Your task to perform on an android device: stop showing notifications on the lock screen Image 0: 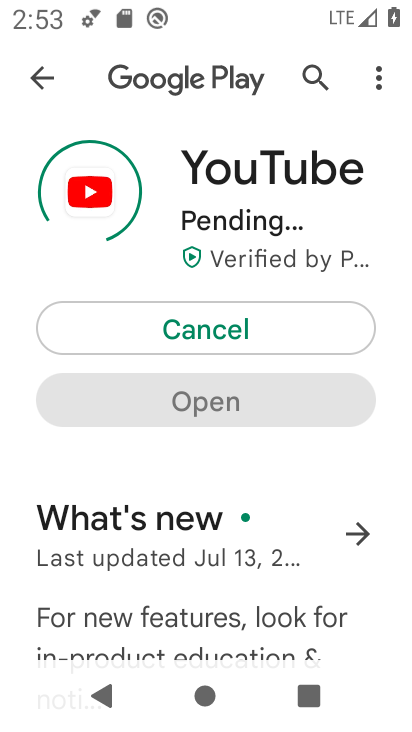
Step 0: press home button
Your task to perform on an android device: stop showing notifications on the lock screen Image 1: 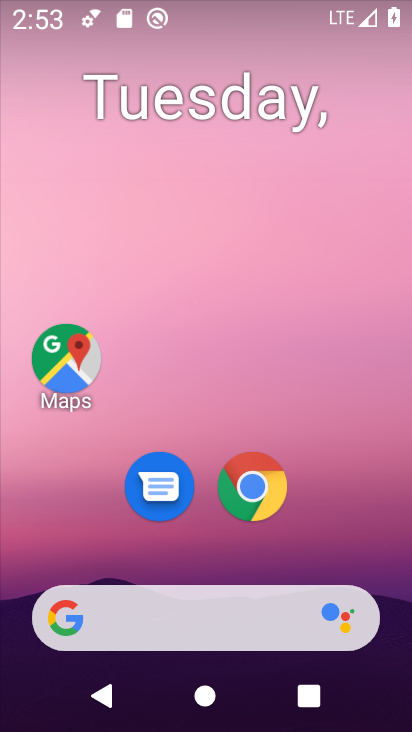
Step 1: drag from (358, 537) to (343, 85)
Your task to perform on an android device: stop showing notifications on the lock screen Image 2: 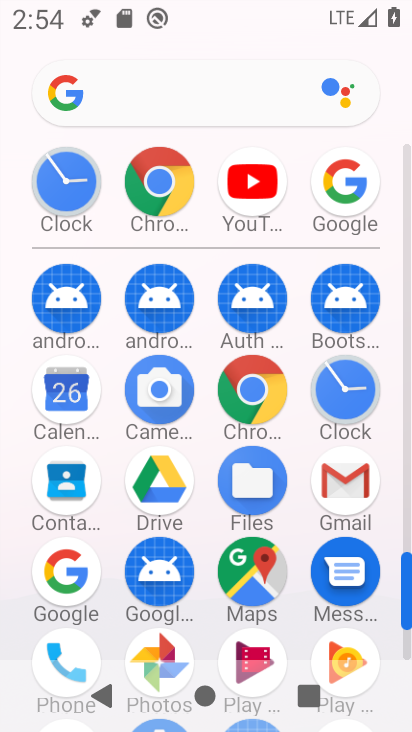
Step 2: drag from (391, 474) to (389, 231)
Your task to perform on an android device: stop showing notifications on the lock screen Image 3: 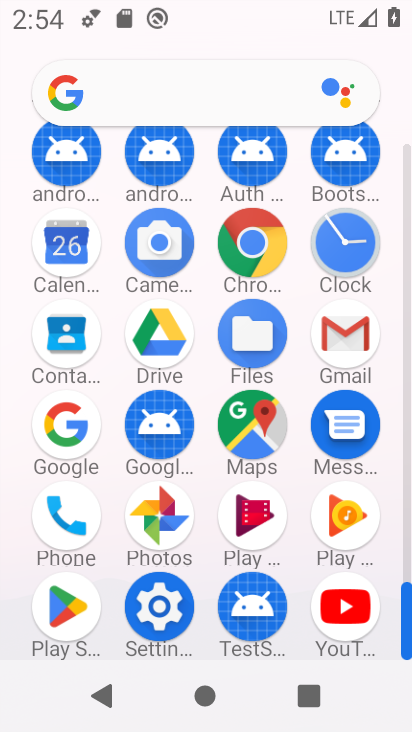
Step 3: click (158, 600)
Your task to perform on an android device: stop showing notifications on the lock screen Image 4: 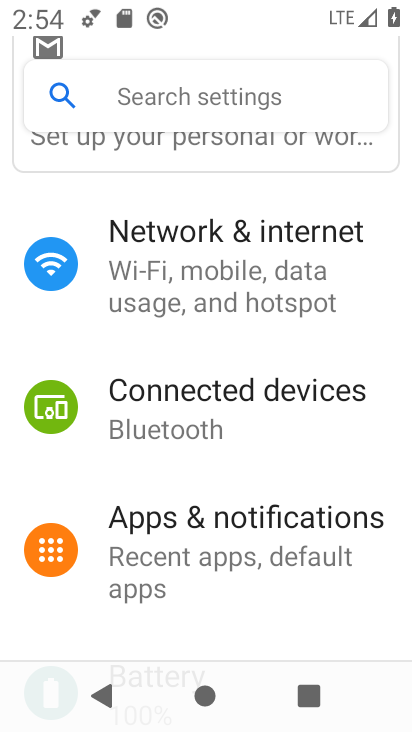
Step 4: drag from (365, 272) to (369, 374)
Your task to perform on an android device: stop showing notifications on the lock screen Image 5: 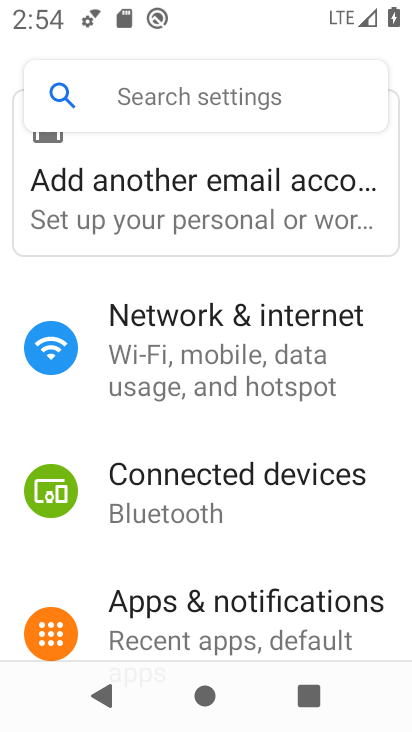
Step 5: drag from (366, 213) to (366, 424)
Your task to perform on an android device: stop showing notifications on the lock screen Image 6: 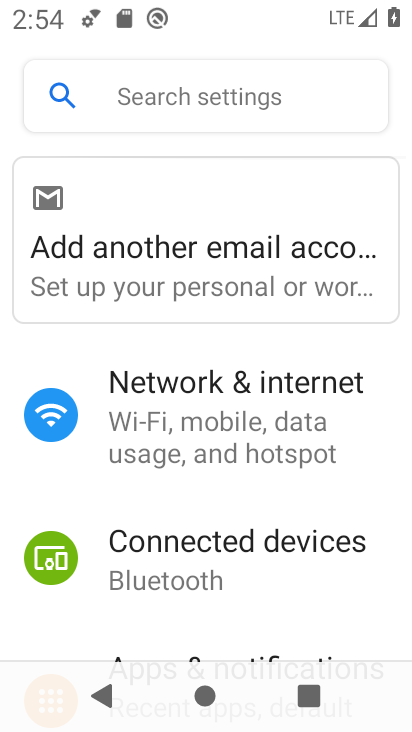
Step 6: drag from (349, 503) to (364, 410)
Your task to perform on an android device: stop showing notifications on the lock screen Image 7: 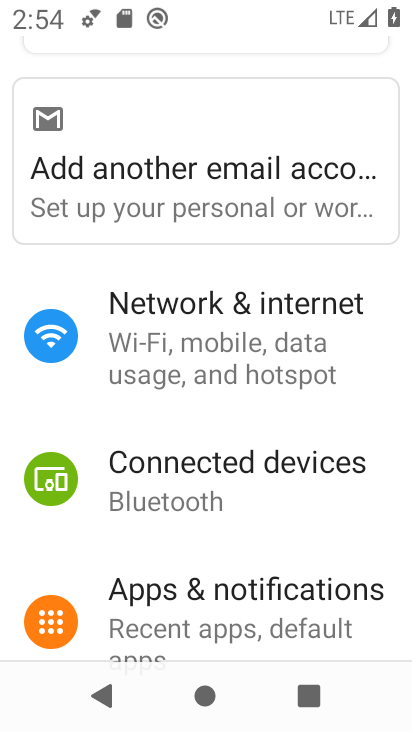
Step 7: drag from (359, 524) to (362, 427)
Your task to perform on an android device: stop showing notifications on the lock screen Image 8: 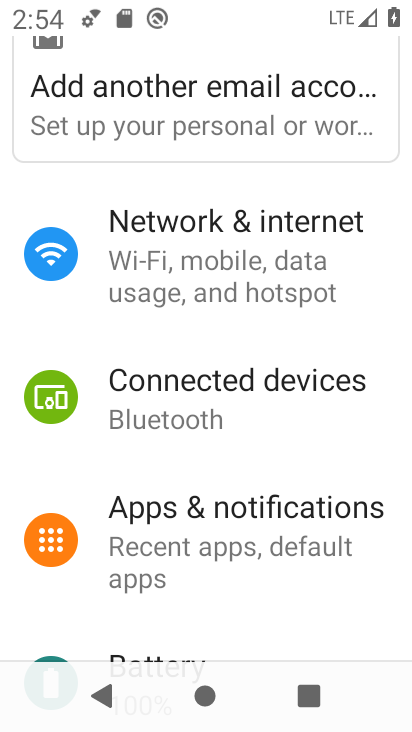
Step 8: drag from (364, 567) to (360, 473)
Your task to perform on an android device: stop showing notifications on the lock screen Image 9: 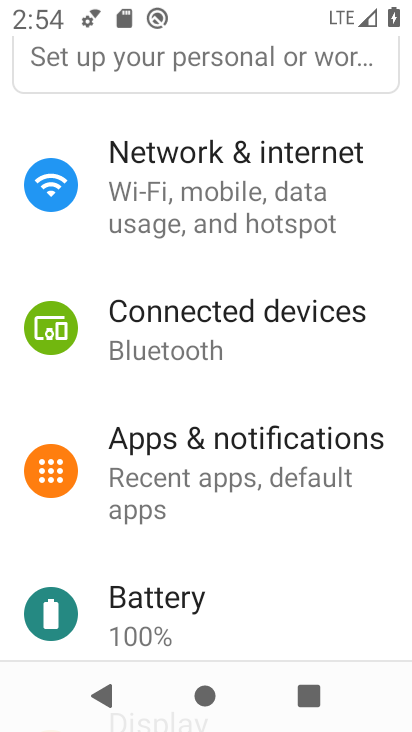
Step 9: drag from (343, 579) to (350, 500)
Your task to perform on an android device: stop showing notifications on the lock screen Image 10: 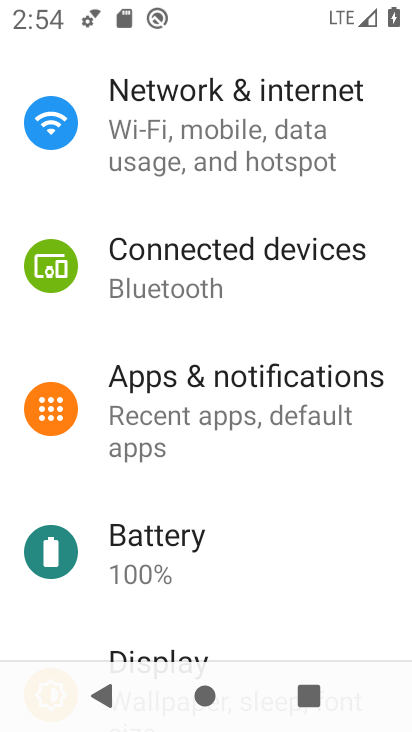
Step 10: drag from (335, 580) to (334, 469)
Your task to perform on an android device: stop showing notifications on the lock screen Image 11: 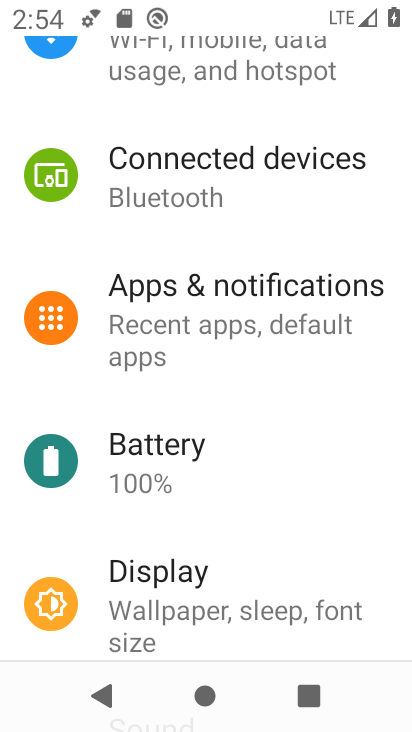
Step 11: drag from (338, 539) to (342, 434)
Your task to perform on an android device: stop showing notifications on the lock screen Image 12: 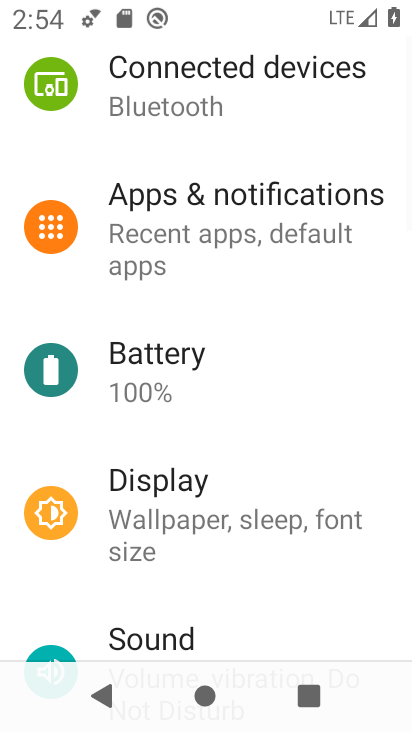
Step 12: drag from (340, 574) to (342, 442)
Your task to perform on an android device: stop showing notifications on the lock screen Image 13: 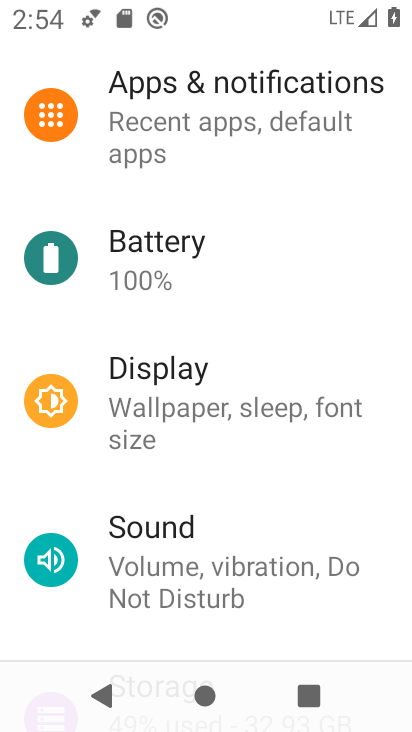
Step 13: drag from (318, 562) to (322, 464)
Your task to perform on an android device: stop showing notifications on the lock screen Image 14: 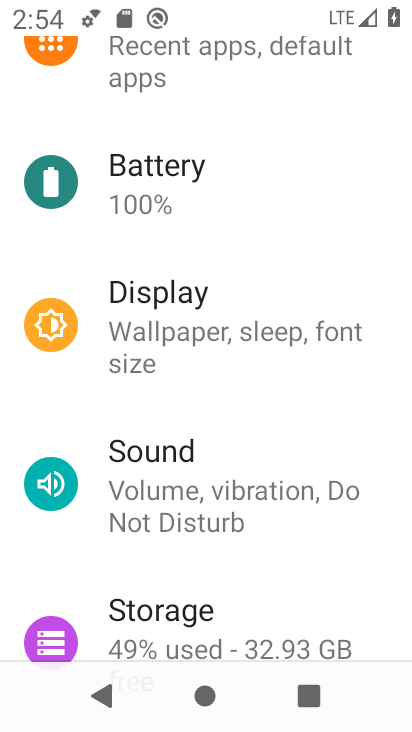
Step 14: drag from (334, 562) to (337, 471)
Your task to perform on an android device: stop showing notifications on the lock screen Image 15: 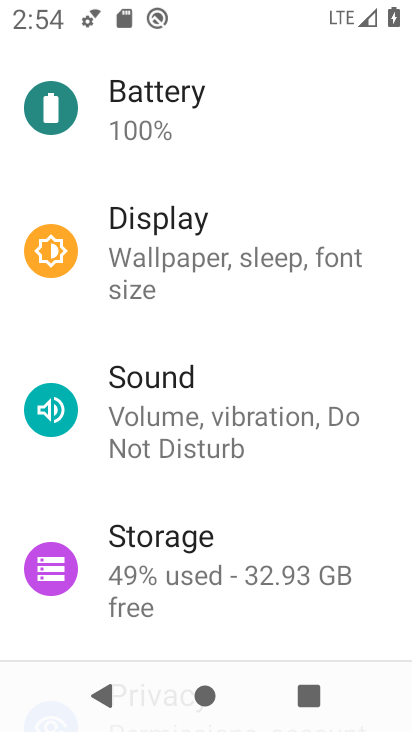
Step 15: drag from (340, 328) to (350, 427)
Your task to perform on an android device: stop showing notifications on the lock screen Image 16: 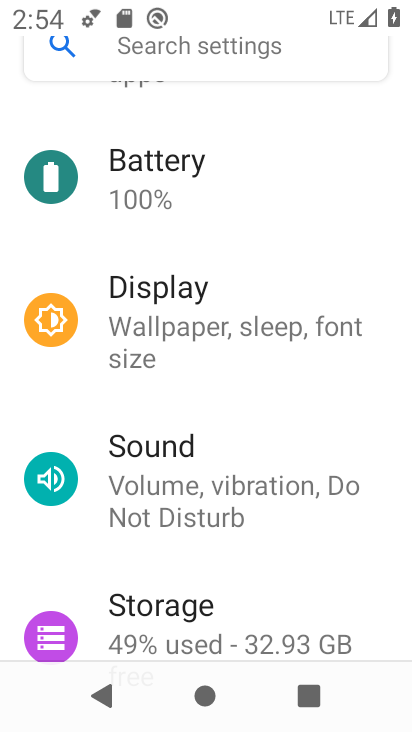
Step 16: drag from (354, 240) to (355, 370)
Your task to perform on an android device: stop showing notifications on the lock screen Image 17: 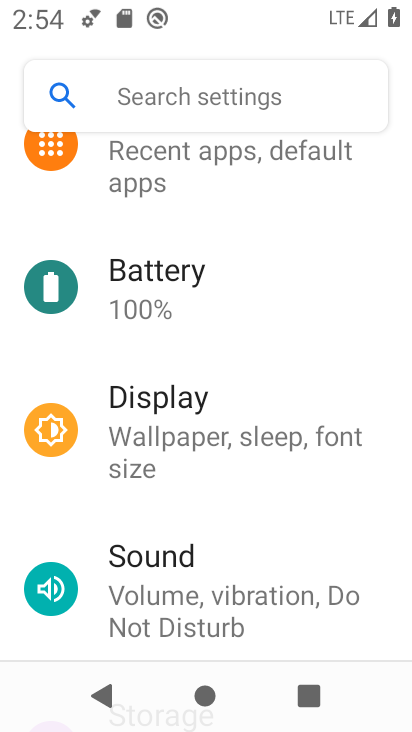
Step 17: drag from (354, 211) to (354, 326)
Your task to perform on an android device: stop showing notifications on the lock screen Image 18: 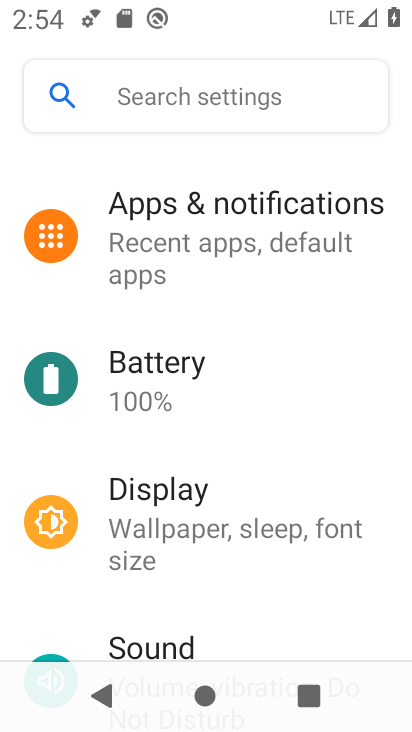
Step 18: drag from (358, 207) to (358, 318)
Your task to perform on an android device: stop showing notifications on the lock screen Image 19: 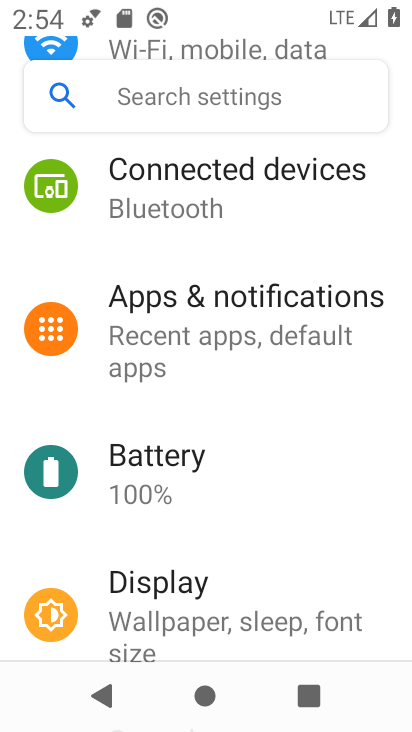
Step 19: drag from (349, 196) to (348, 345)
Your task to perform on an android device: stop showing notifications on the lock screen Image 20: 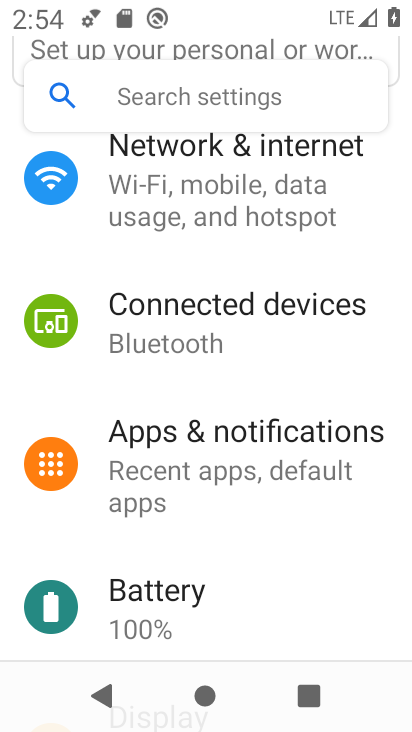
Step 20: click (342, 460)
Your task to perform on an android device: stop showing notifications on the lock screen Image 21: 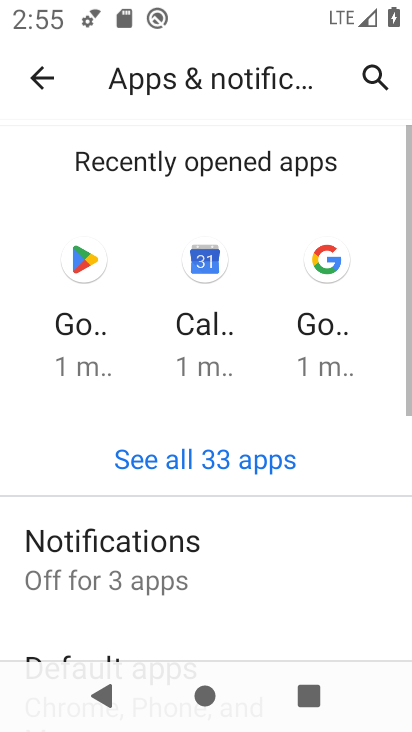
Step 21: click (211, 551)
Your task to perform on an android device: stop showing notifications on the lock screen Image 22: 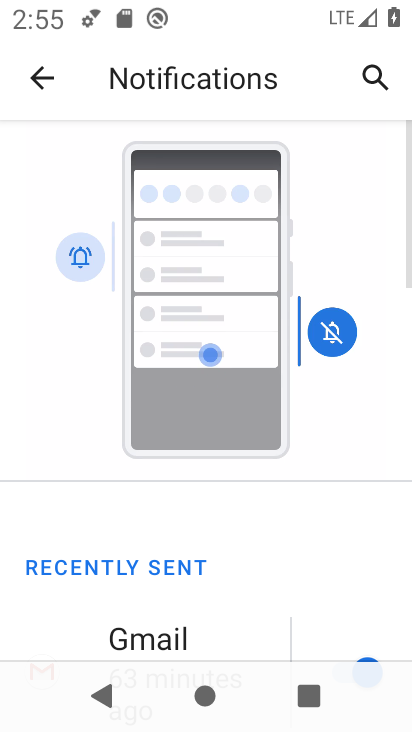
Step 22: drag from (276, 537) to (277, 370)
Your task to perform on an android device: stop showing notifications on the lock screen Image 23: 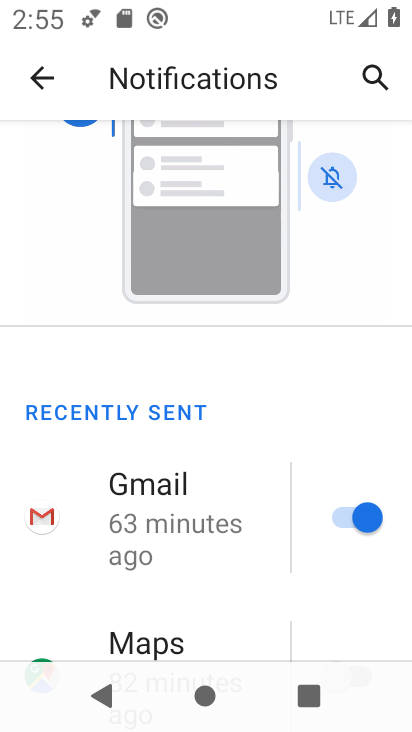
Step 23: drag from (257, 569) to (247, 440)
Your task to perform on an android device: stop showing notifications on the lock screen Image 24: 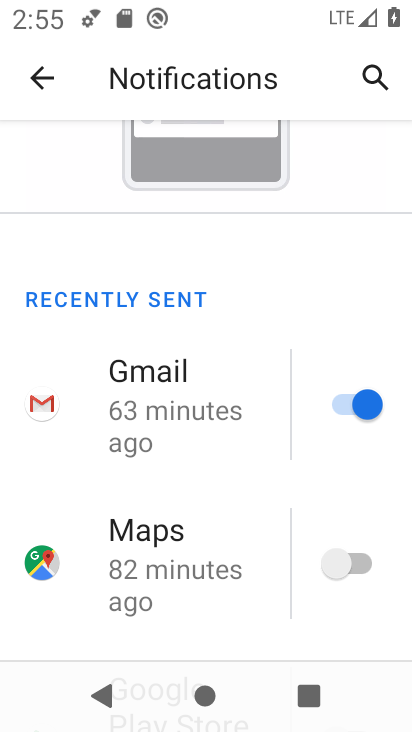
Step 24: drag from (248, 563) to (247, 454)
Your task to perform on an android device: stop showing notifications on the lock screen Image 25: 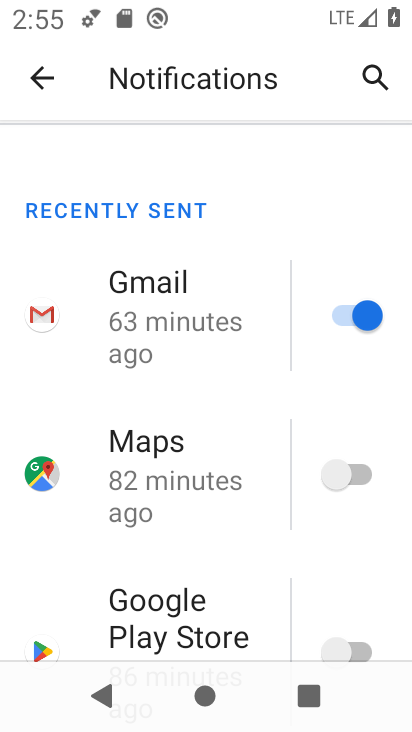
Step 25: drag from (246, 565) to (246, 460)
Your task to perform on an android device: stop showing notifications on the lock screen Image 26: 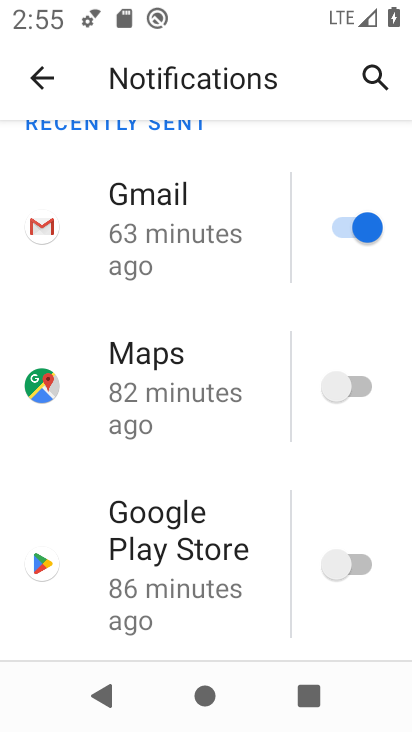
Step 26: drag from (243, 593) to (243, 483)
Your task to perform on an android device: stop showing notifications on the lock screen Image 27: 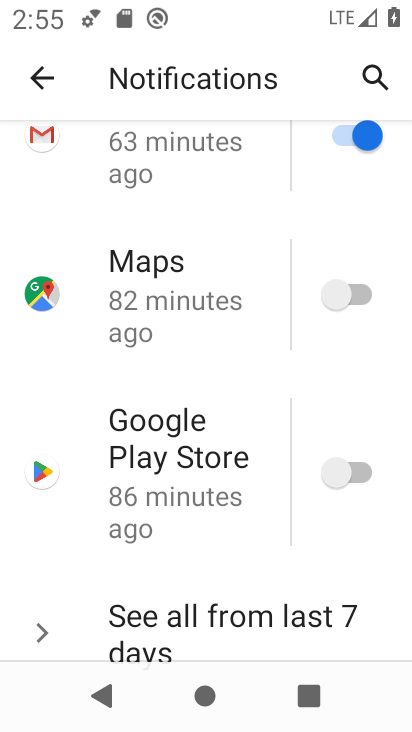
Step 27: drag from (241, 575) to (245, 460)
Your task to perform on an android device: stop showing notifications on the lock screen Image 28: 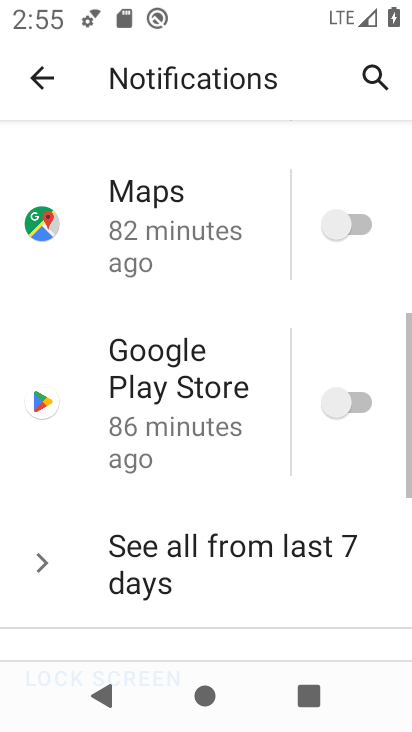
Step 28: drag from (245, 591) to (254, 458)
Your task to perform on an android device: stop showing notifications on the lock screen Image 29: 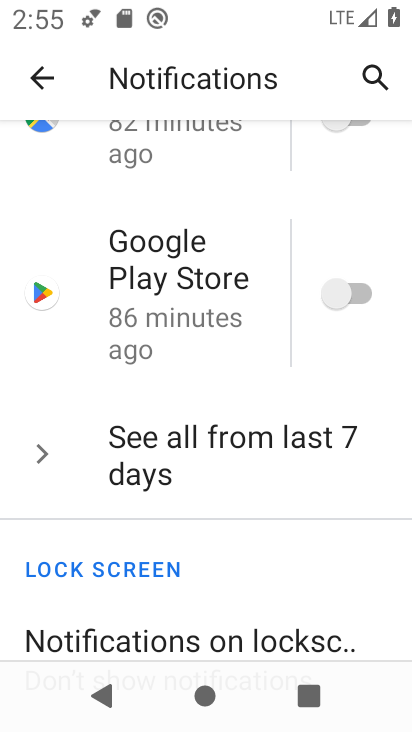
Step 29: drag from (237, 603) to (237, 494)
Your task to perform on an android device: stop showing notifications on the lock screen Image 30: 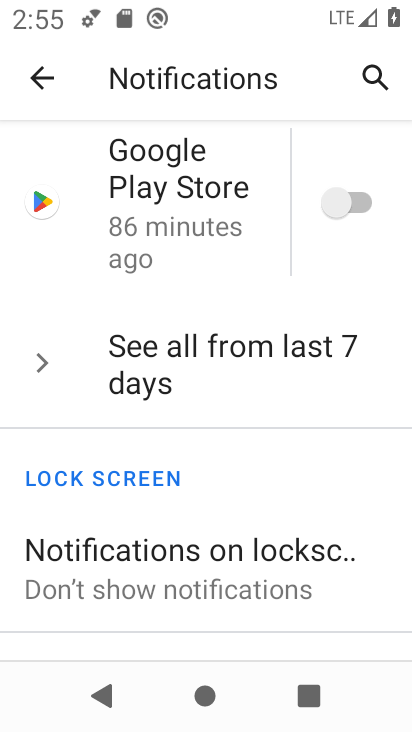
Step 30: click (223, 581)
Your task to perform on an android device: stop showing notifications on the lock screen Image 31: 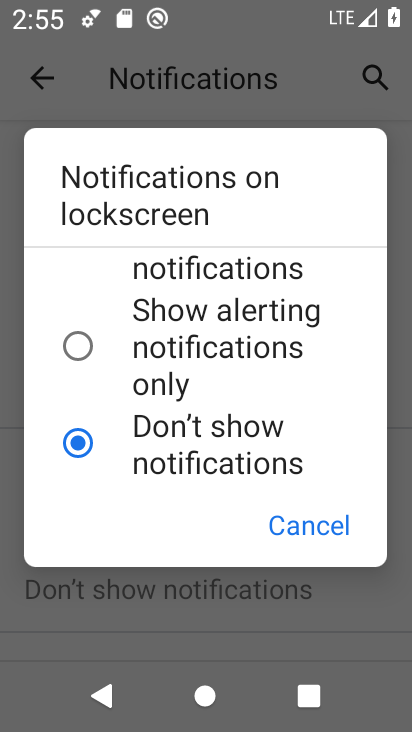
Step 31: task complete